Your task to perform on an android device: turn smart compose on in the gmail app Image 0: 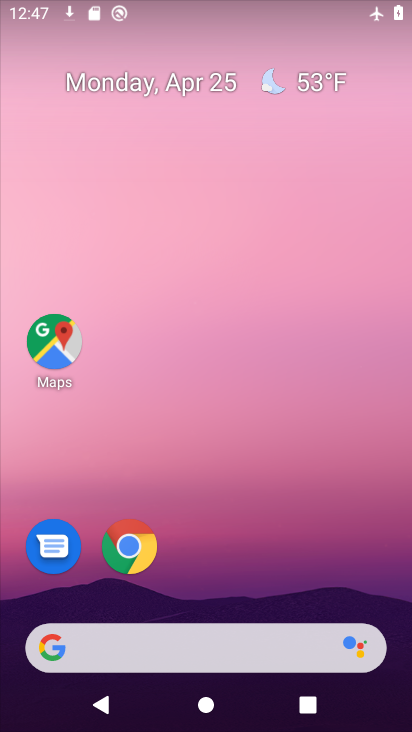
Step 0: drag from (324, 543) to (325, 204)
Your task to perform on an android device: turn smart compose on in the gmail app Image 1: 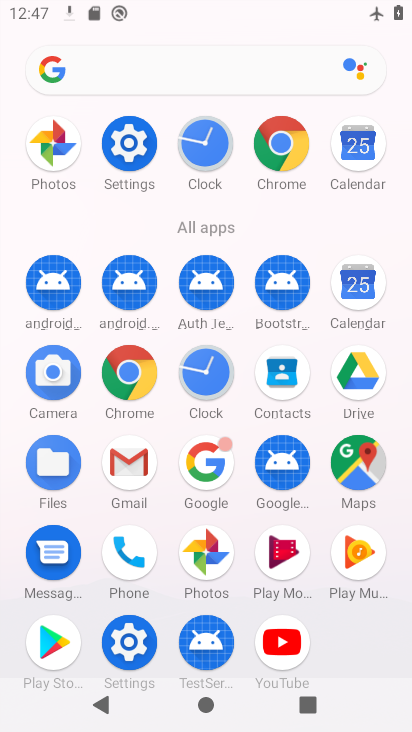
Step 1: click (122, 470)
Your task to perform on an android device: turn smart compose on in the gmail app Image 2: 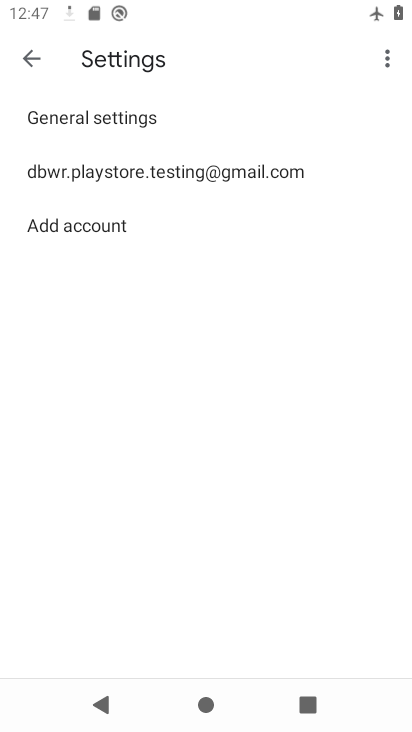
Step 2: click (39, 57)
Your task to perform on an android device: turn smart compose on in the gmail app Image 3: 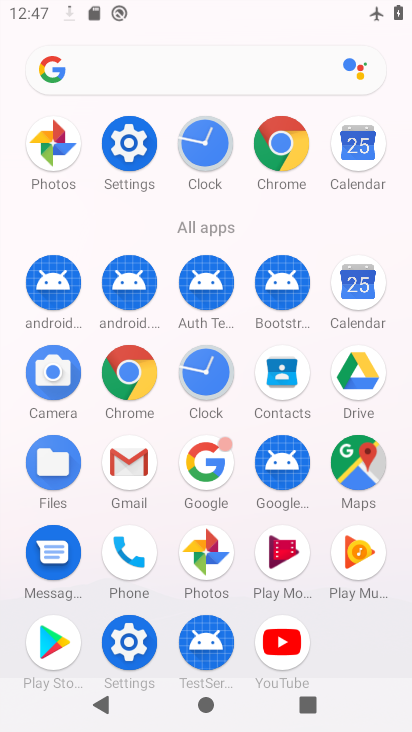
Step 3: click (142, 447)
Your task to perform on an android device: turn smart compose on in the gmail app Image 4: 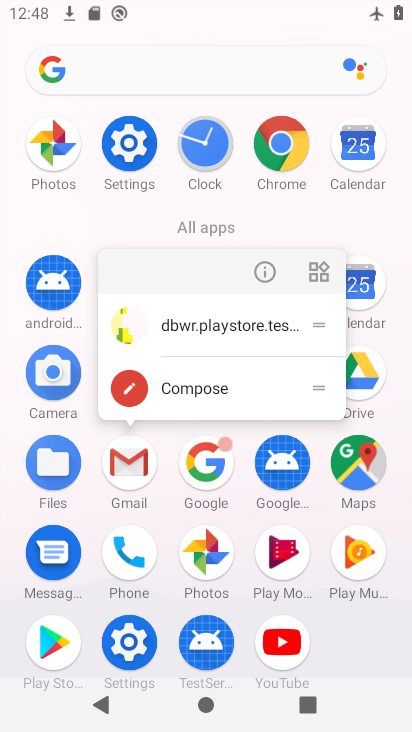
Step 4: click (130, 460)
Your task to perform on an android device: turn smart compose on in the gmail app Image 5: 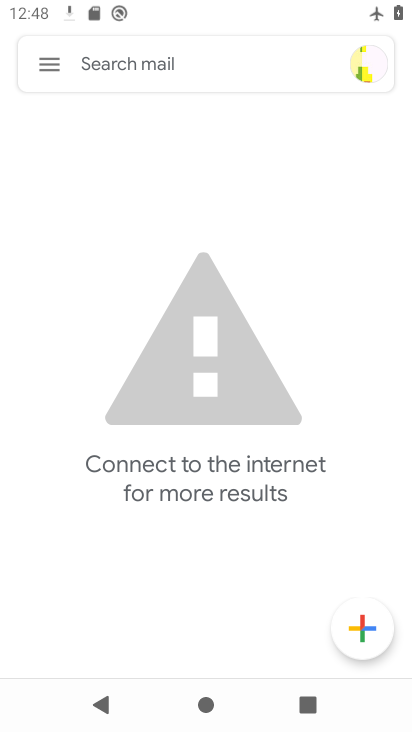
Step 5: click (46, 63)
Your task to perform on an android device: turn smart compose on in the gmail app Image 6: 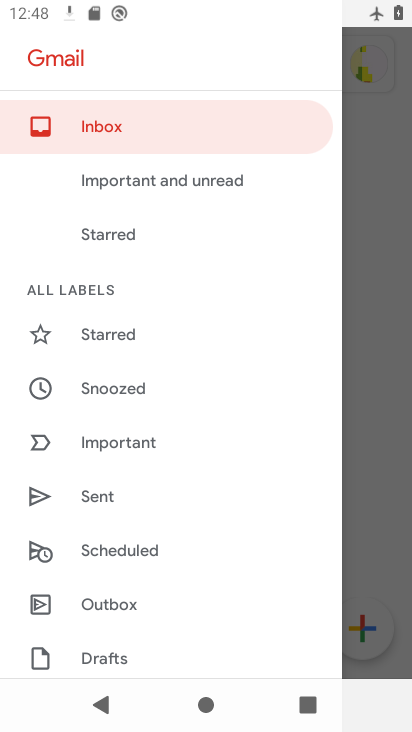
Step 6: drag from (158, 590) to (163, 18)
Your task to perform on an android device: turn smart compose on in the gmail app Image 7: 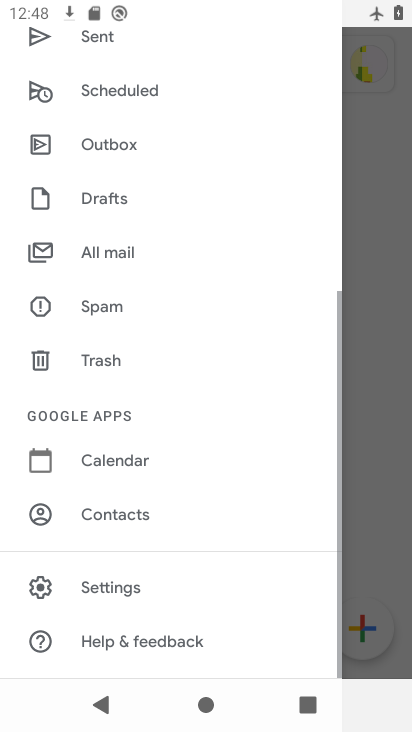
Step 7: drag from (161, 570) to (163, 526)
Your task to perform on an android device: turn smart compose on in the gmail app Image 8: 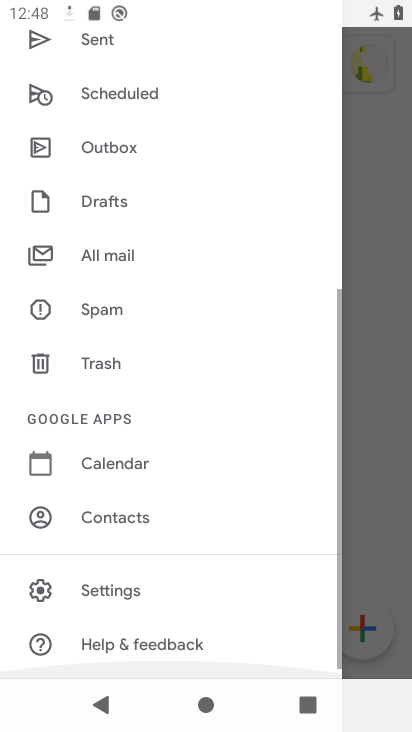
Step 8: click (163, 583)
Your task to perform on an android device: turn smart compose on in the gmail app Image 9: 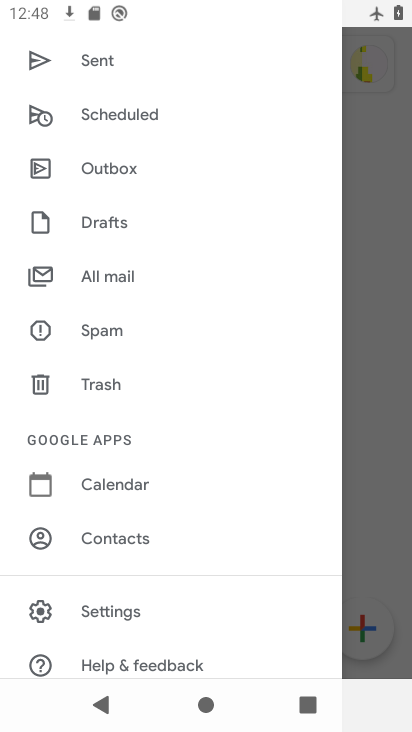
Step 9: click (140, 604)
Your task to perform on an android device: turn smart compose on in the gmail app Image 10: 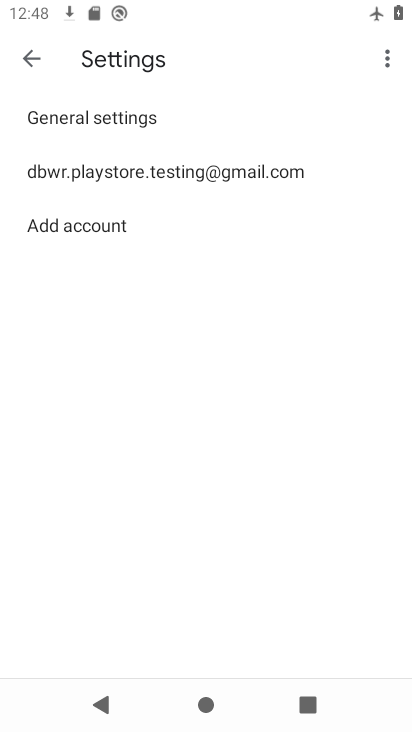
Step 10: click (315, 178)
Your task to perform on an android device: turn smart compose on in the gmail app Image 11: 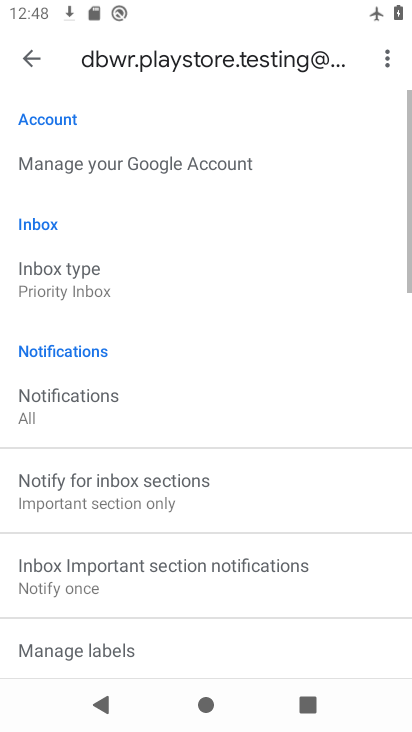
Step 11: task complete